Your task to perform on an android device: change alarm snooze length Image 0: 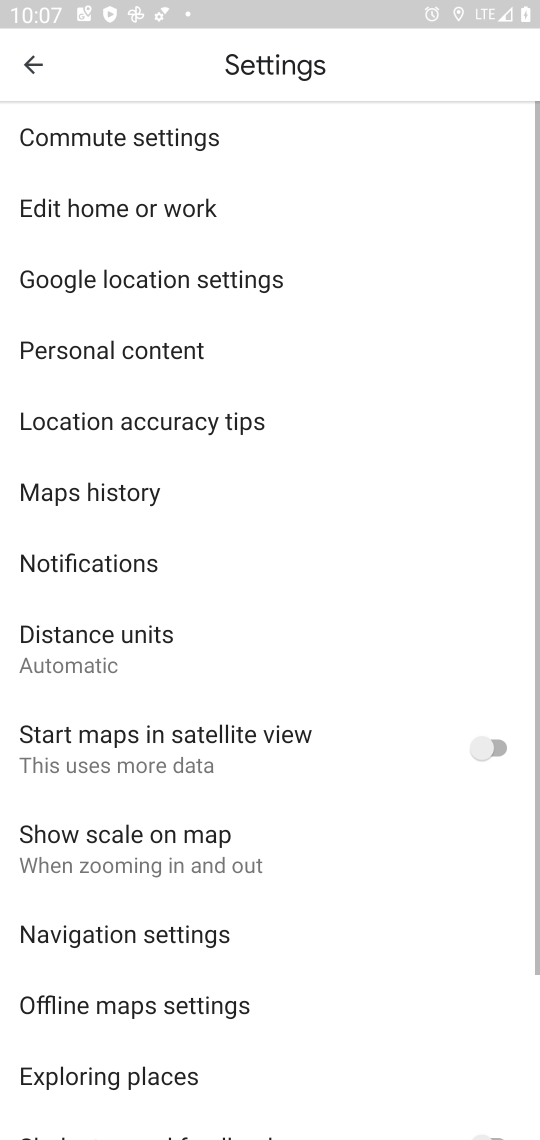
Step 0: press home button
Your task to perform on an android device: change alarm snooze length Image 1: 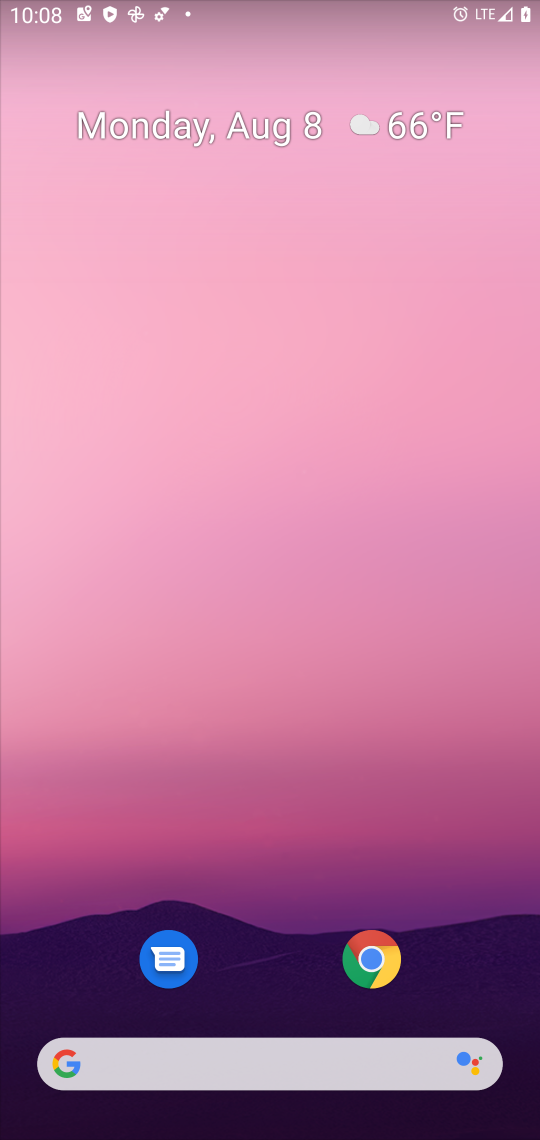
Step 1: drag from (424, 479) to (275, 38)
Your task to perform on an android device: change alarm snooze length Image 2: 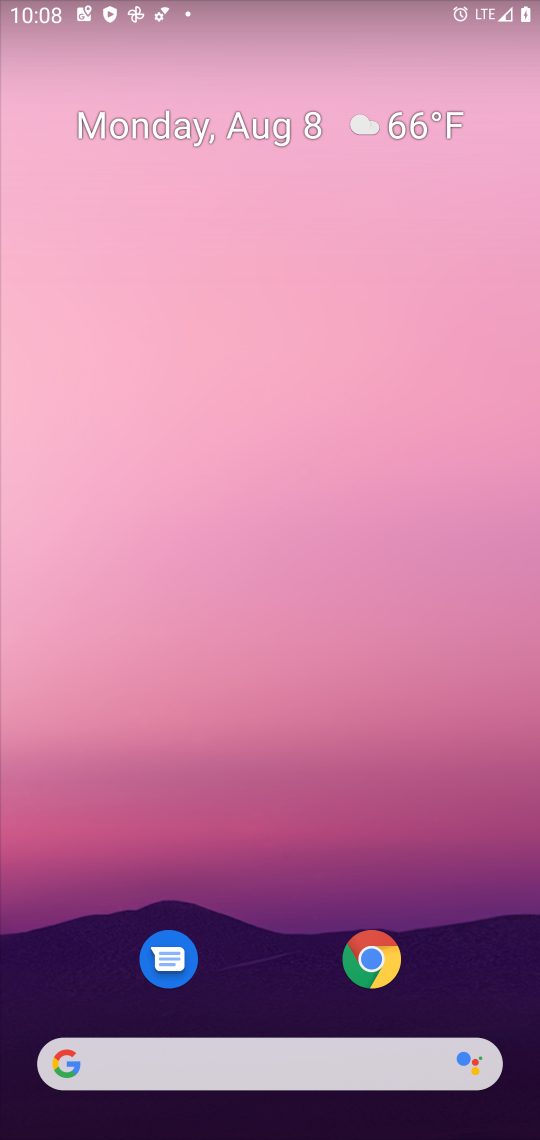
Step 2: drag from (497, 996) to (222, 10)
Your task to perform on an android device: change alarm snooze length Image 3: 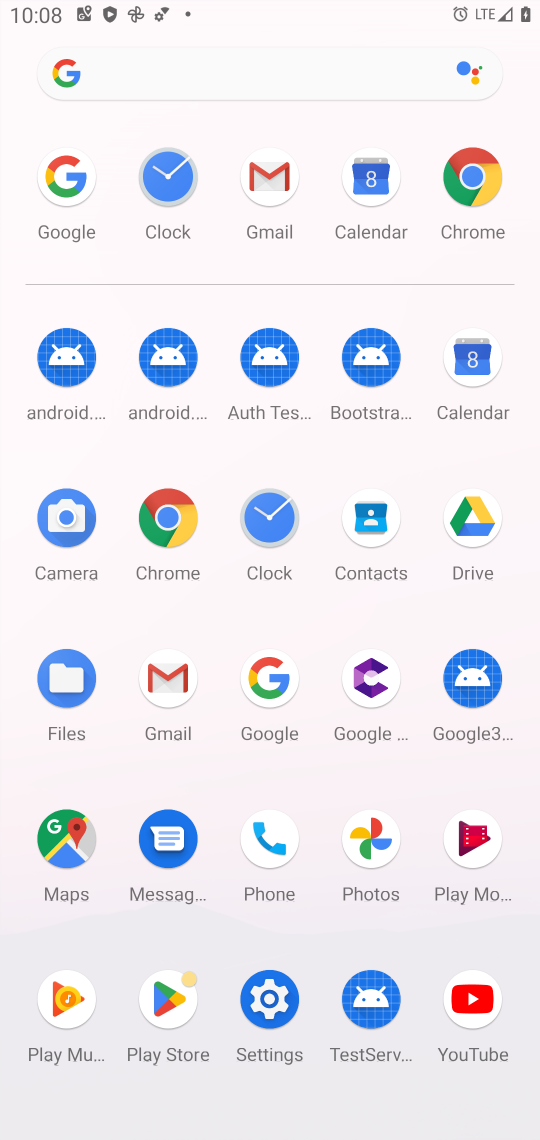
Step 3: click (265, 533)
Your task to perform on an android device: change alarm snooze length Image 4: 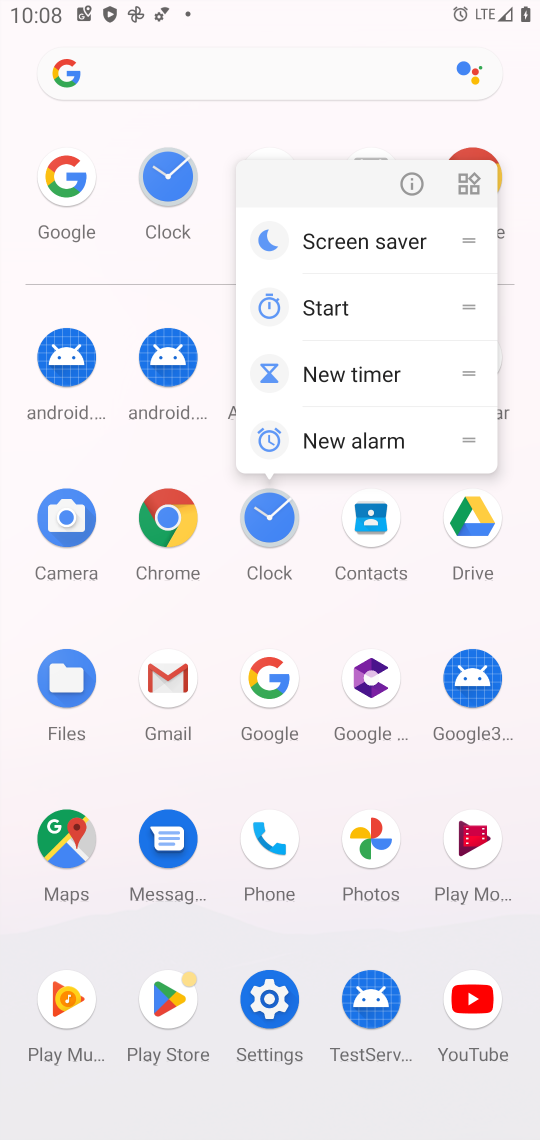
Step 4: click (297, 510)
Your task to perform on an android device: change alarm snooze length Image 5: 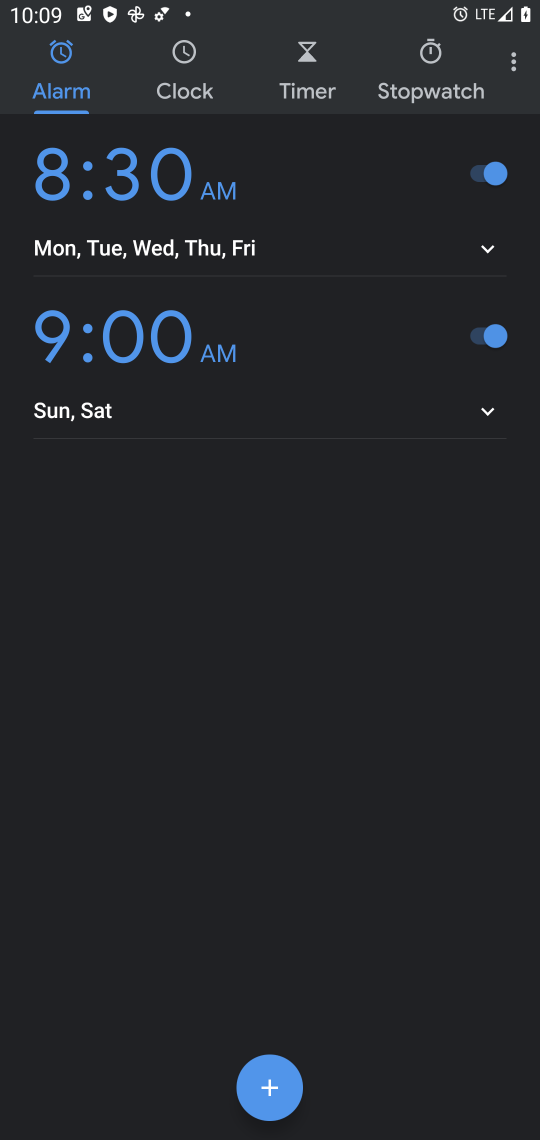
Step 5: click (513, 54)
Your task to perform on an android device: change alarm snooze length Image 6: 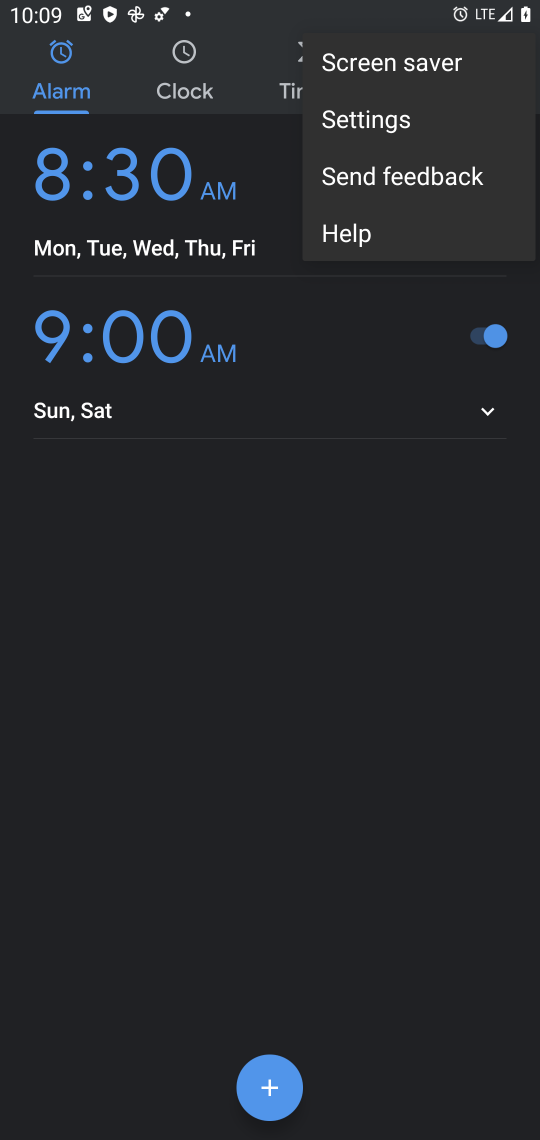
Step 6: click (394, 123)
Your task to perform on an android device: change alarm snooze length Image 7: 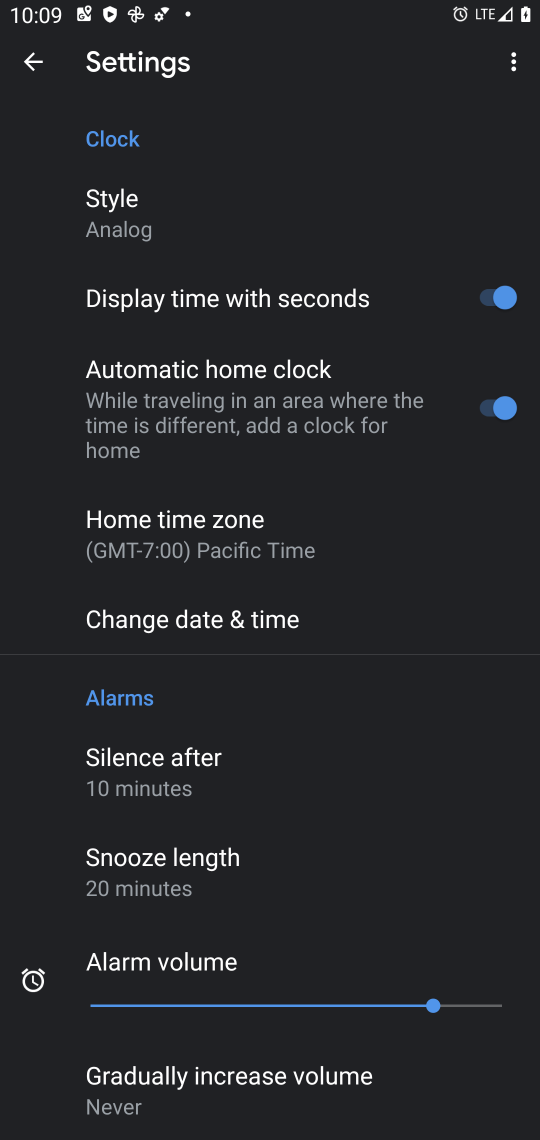
Step 7: click (160, 894)
Your task to perform on an android device: change alarm snooze length Image 8: 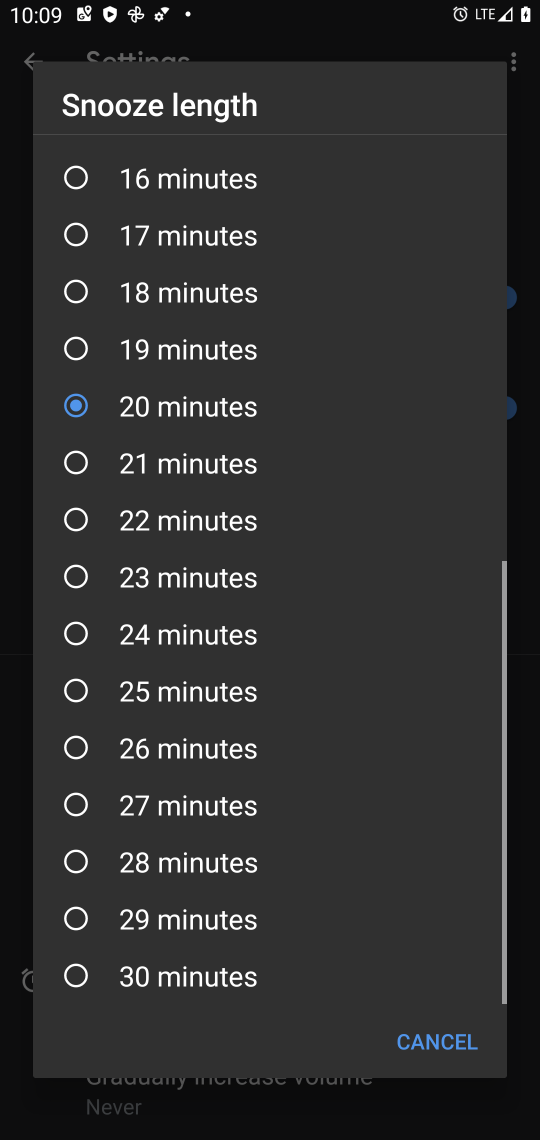
Step 8: click (72, 636)
Your task to perform on an android device: change alarm snooze length Image 9: 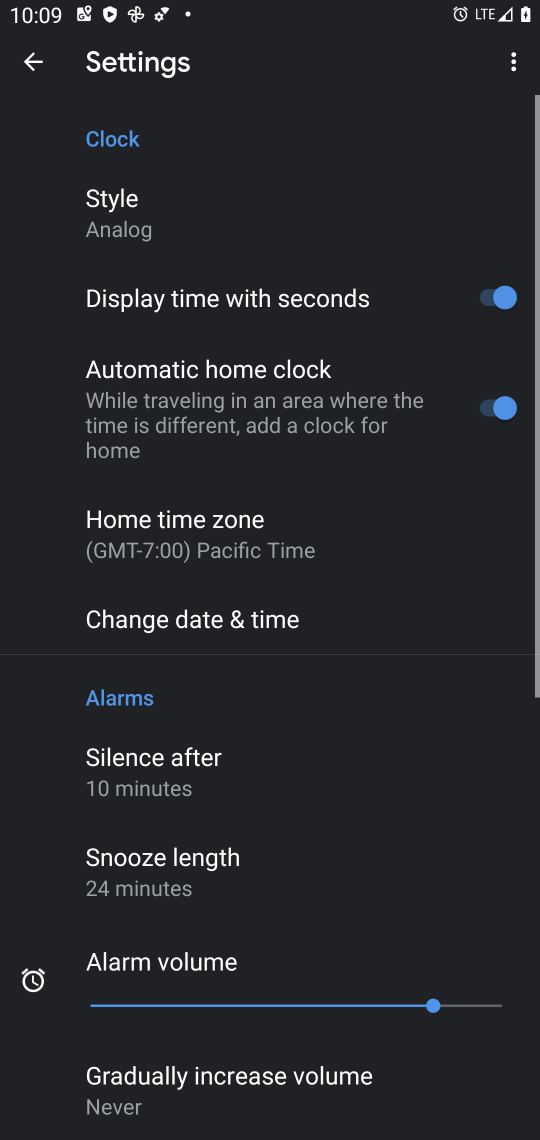
Step 9: task complete